Your task to perform on an android device: change the clock display to analog Image 0: 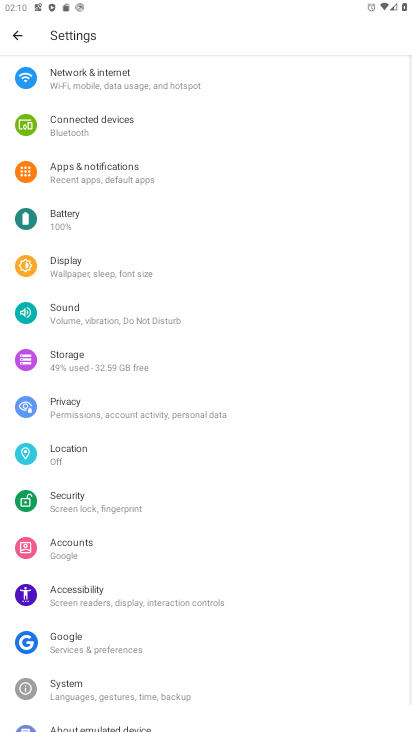
Step 0: press home button
Your task to perform on an android device: change the clock display to analog Image 1: 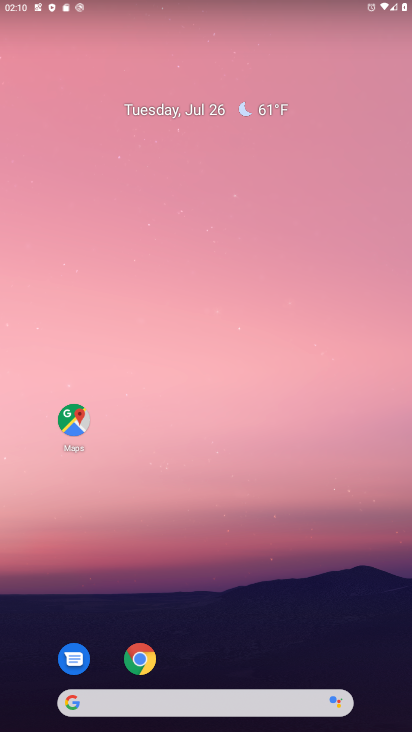
Step 1: drag from (278, 641) to (270, 164)
Your task to perform on an android device: change the clock display to analog Image 2: 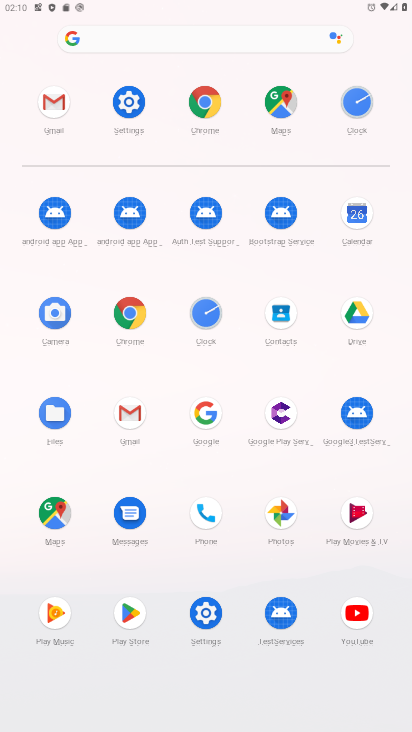
Step 2: click (356, 95)
Your task to perform on an android device: change the clock display to analog Image 3: 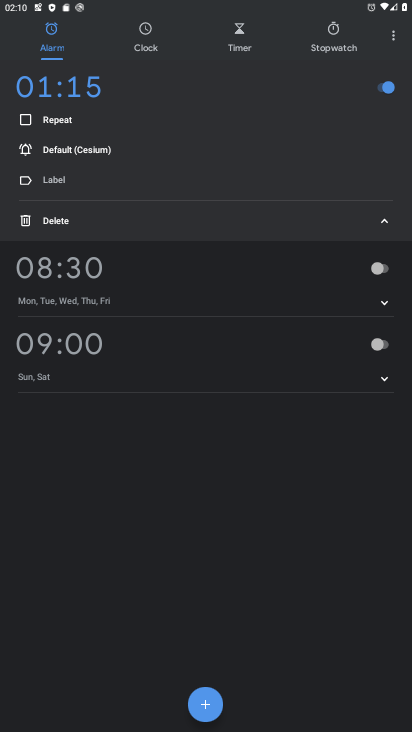
Step 3: click (390, 34)
Your task to perform on an android device: change the clock display to analog Image 4: 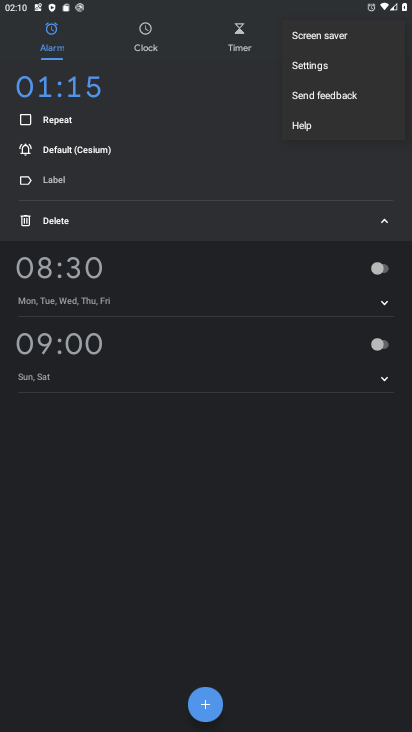
Step 4: click (304, 65)
Your task to perform on an android device: change the clock display to analog Image 5: 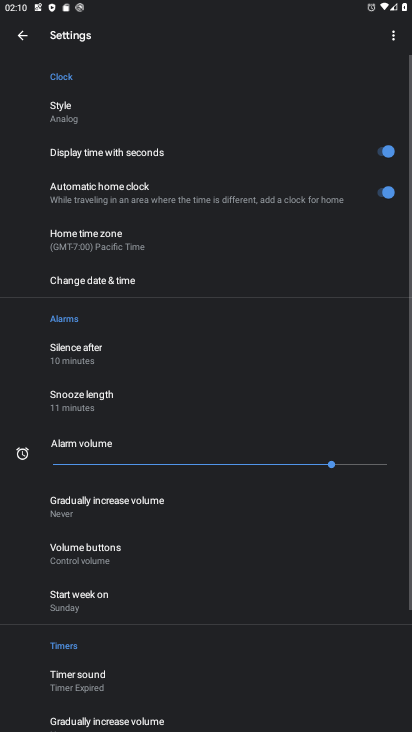
Step 5: click (69, 110)
Your task to perform on an android device: change the clock display to analog Image 6: 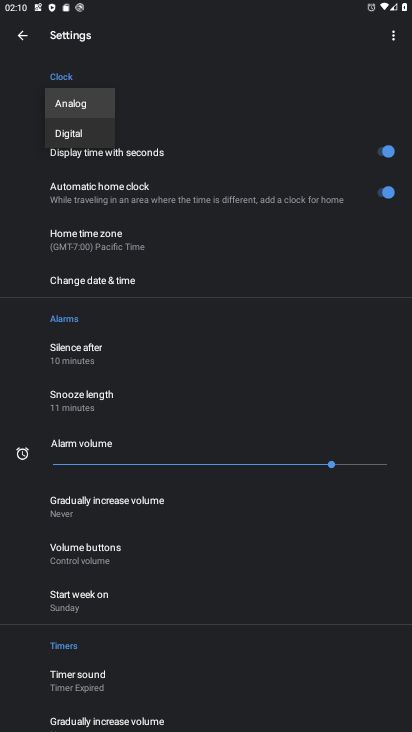
Step 6: task complete